Your task to perform on an android device: turn off priority inbox in the gmail app Image 0: 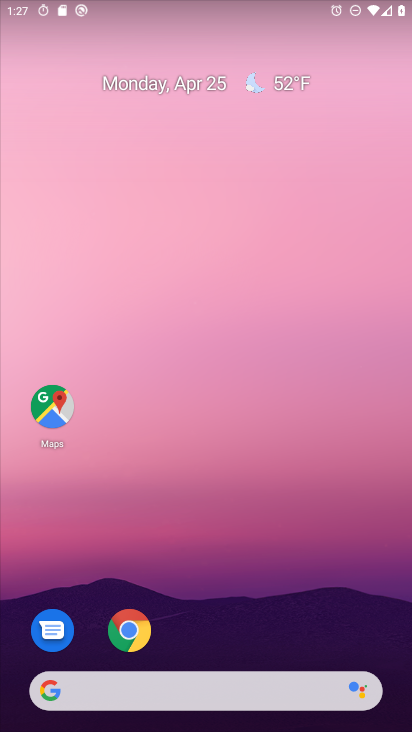
Step 0: drag from (159, 659) to (215, 171)
Your task to perform on an android device: turn off priority inbox in the gmail app Image 1: 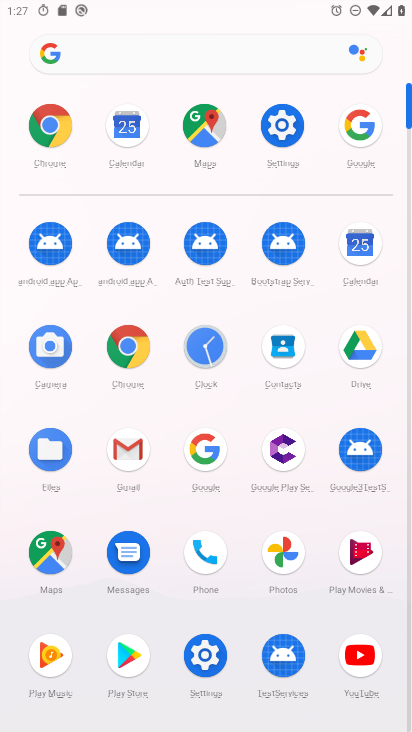
Step 1: drag from (236, 632) to (240, 236)
Your task to perform on an android device: turn off priority inbox in the gmail app Image 2: 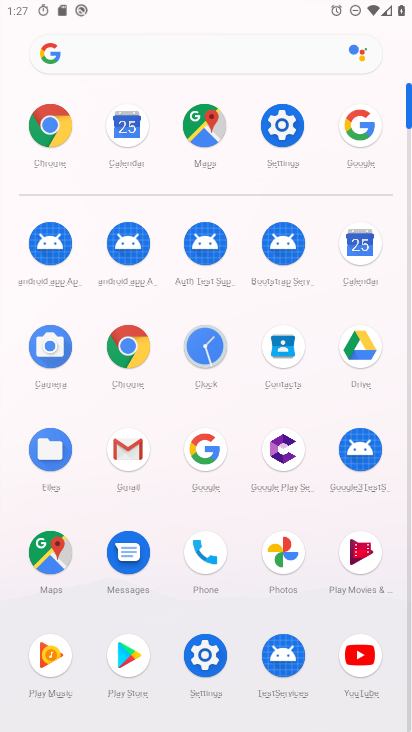
Step 2: click (121, 455)
Your task to perform on an android device: turn off priority inbox in the gmail app Image 3: 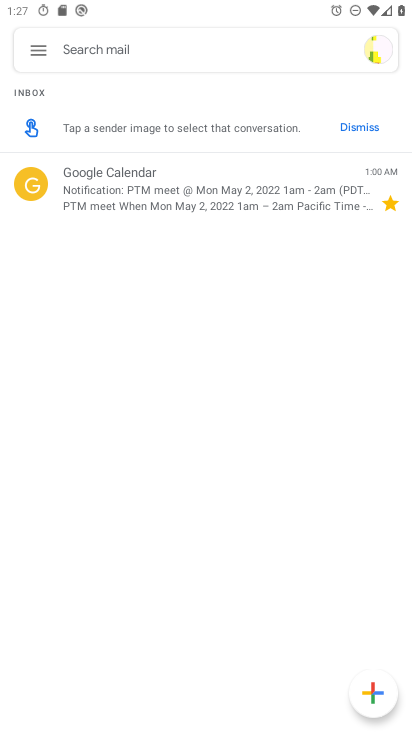
Step 3: click (44, 46)
Your task to perform on an android device: turn off priority inbox in the gmail app Image 4: 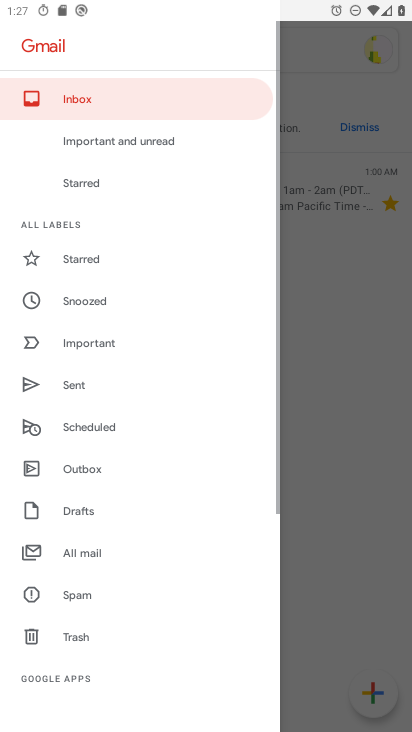
Step 4: drag from (104, 637) to (165, 184)
Your task to perform on an android device: turn off priority inbox in the gmail app Image 5: 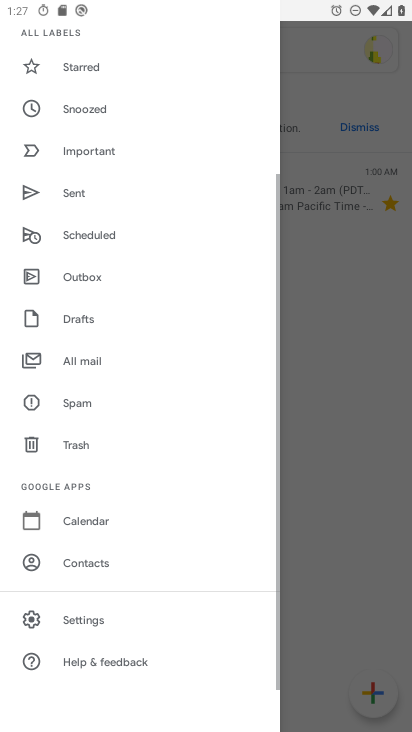
Step 5: click (101, 617)
Your task to perform on an android device: turn off priority inbox in the gmail app Image 6: 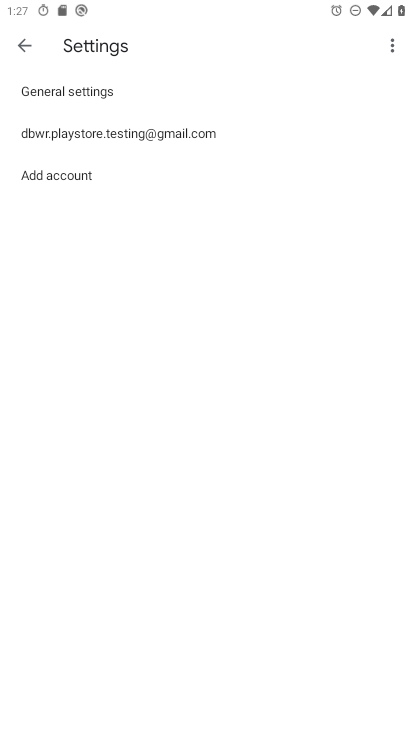
Step 6: click (200, 134)
Your task to perform on an android device: turn off priority inbox in the gmail app Image 7: 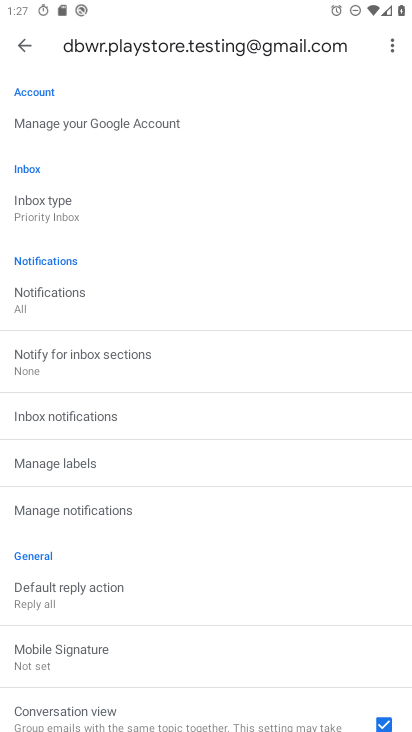
Step 7: click (99, 209)
Your task to perform on an android device: turn off priority inbox in the gmail app Image 8: 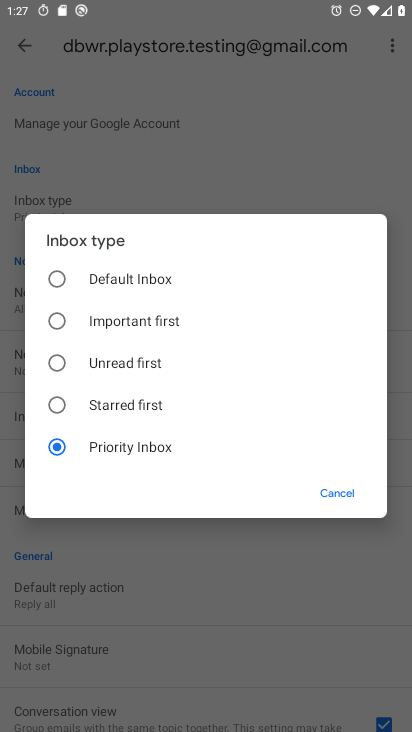
Step 8: click (140, 448)
Your task to perform on an android device: turn off priority inbox in the gmail app Image 9: 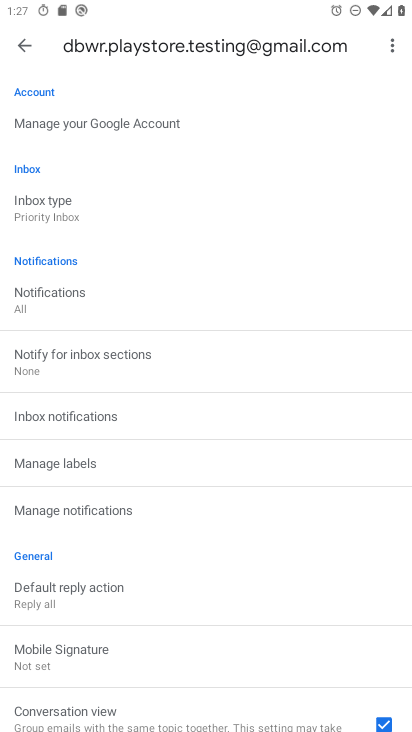
Step 9: task complete